Your task to perform on an android device: toggle javascript in the chrome app Image 0: 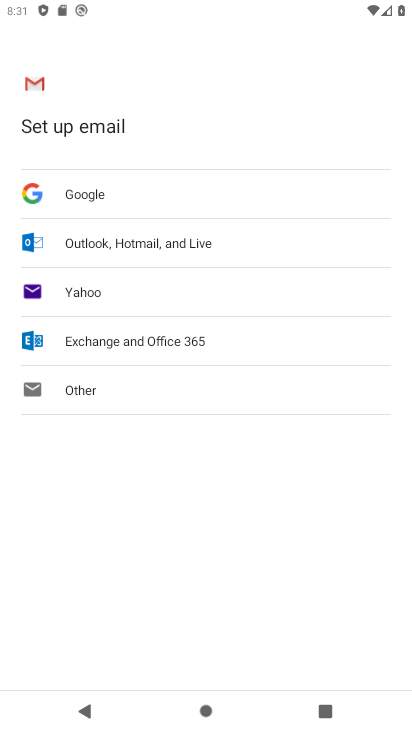
Step 0: press home button
Your task to perform on an android device: toggle javascript in the chrome app Image 1: 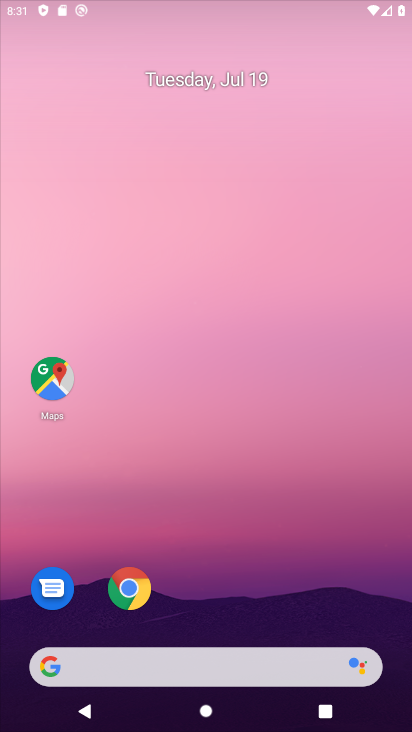
Step 1: drag from (281, 574) to (251, 154)
Your task to perform on an android device: toggle javascript in the chrome app Image 2: 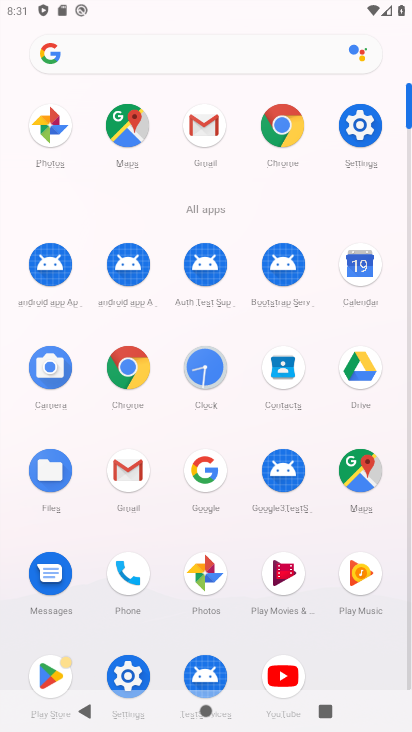
Step 2: click (273, 133)
Your task to perform on an android device: toggle javascript in the chrome app Image 3: 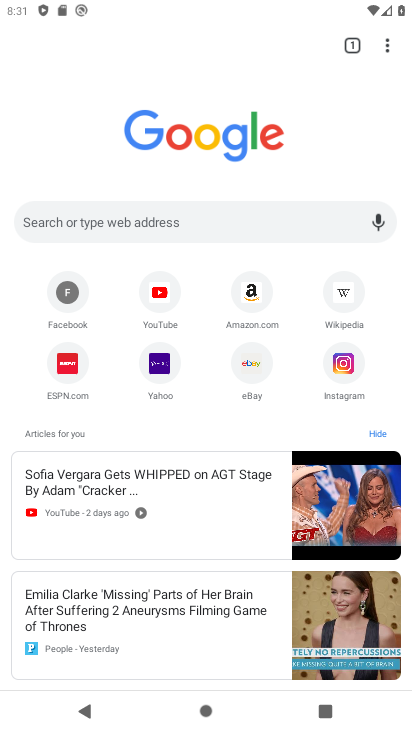
Step 3: drag from (393, 49) to (240, 380)
Your task to perform on an android device: toggle javascript in the chrome app Image 4: 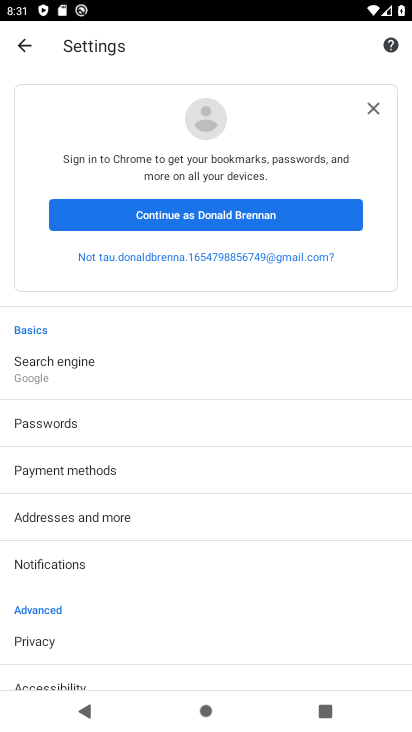
Step 4: drag from (147, 627) to (159, 234)
Your task to perform on an android device: toggle javascript in the chrome app Image 5: 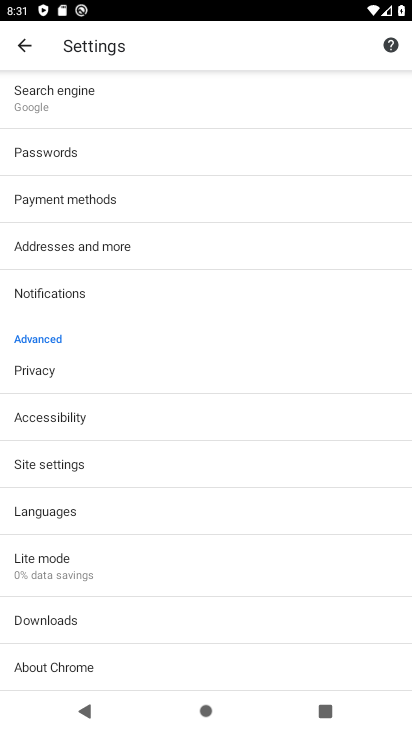
Step 5: click (89, 462)
Your task to perform on an android device: toggle javascript in the chrome app Image 6: 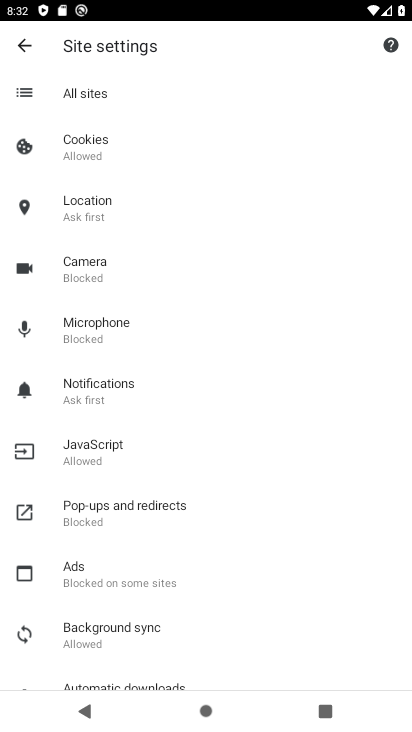
Step 6: click (89, 462)
Your task to perform on an android device: toggle javascript in the chrome app Image 7: 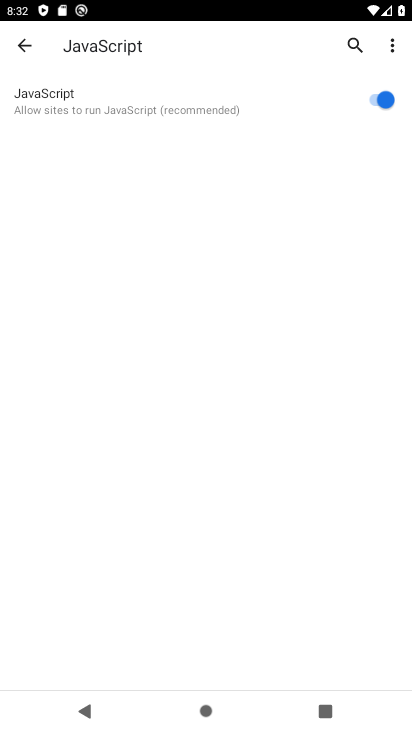
Step 7: click (370, 104)
Your task to perform on an android device: toggle javascript in the chrome app Image 8: 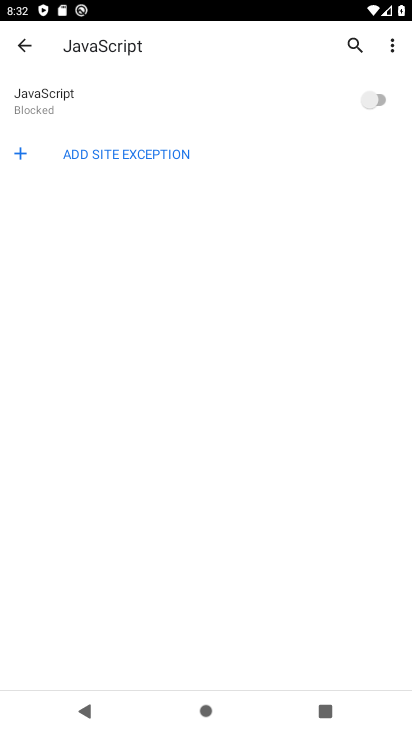
Step 8: task complete